Your task to perform on an android device: turn off wifi Image 0: 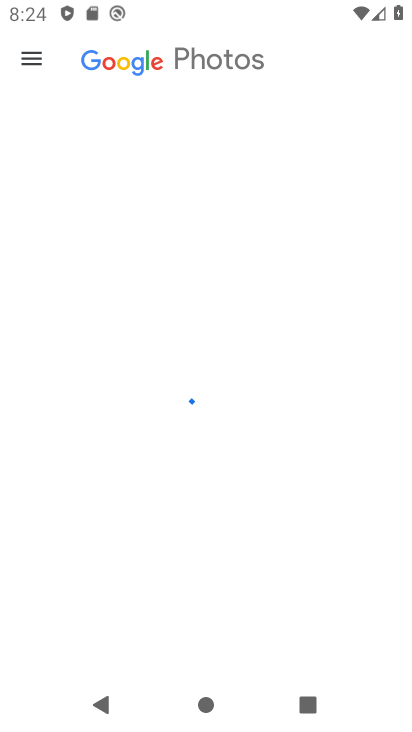
Step 0: press back button
Your task to perform on an android device: turn off wifi Image 1: 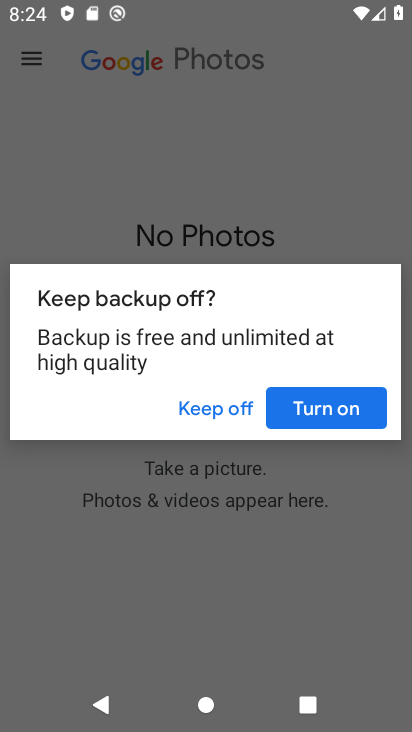
Step 1: press back button
Your task to perform on an android device: turn off wifi Image 2: 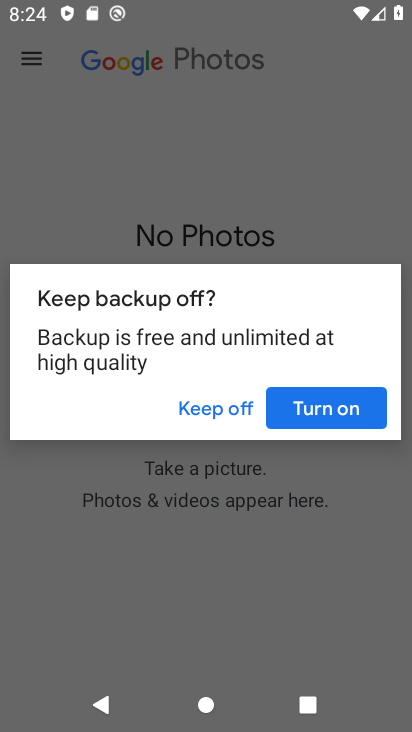
Step 2: press home button
Your task to perform on an android device: turn off wifi Image 3: 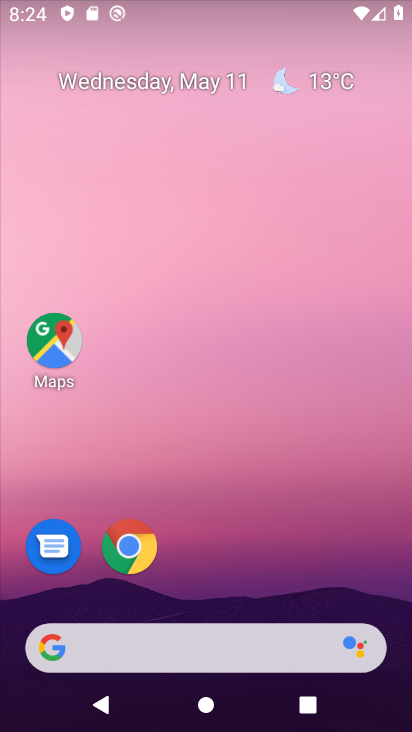
Step 3: drag from (101, 10) to (111, 555)
Your task to perform on an android device: turn off wifi Image 4: 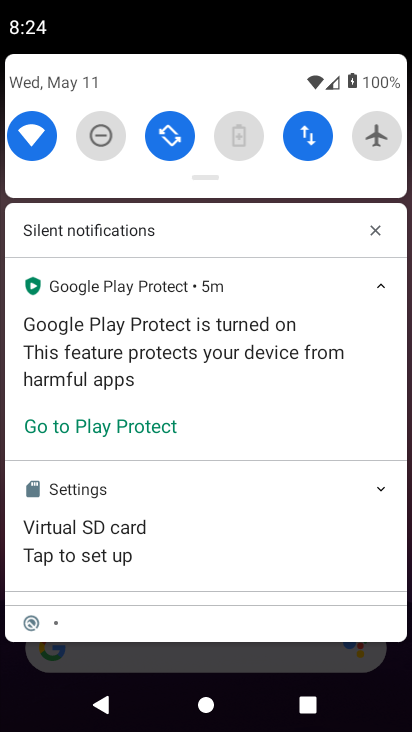
Step 4: click (40, 141)
Your task to perform on an android device: turn off wifi Image 5: 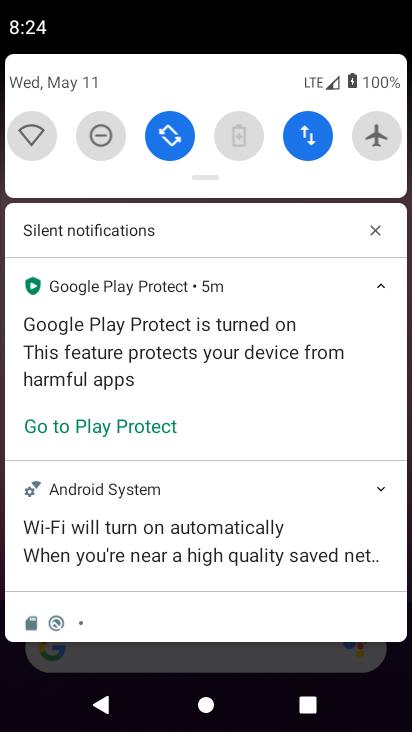
Step 5: task complete